Your task to perform on an android device: set default search engine in the chrome app Image 0: 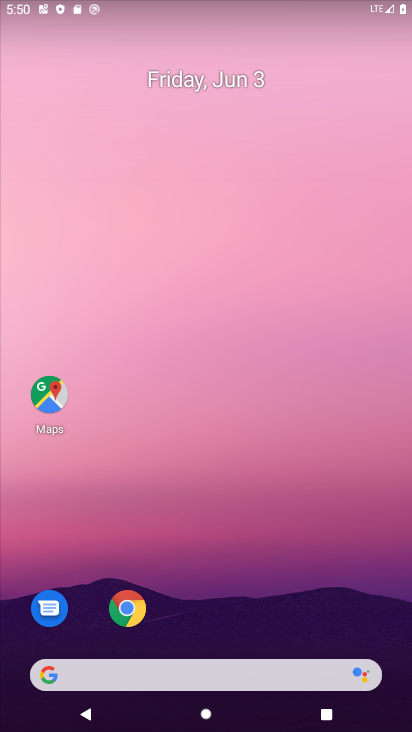
Step 0: click (126, 609)
Your task to perform on an android device: set default search engine in the chrome app Image 1: 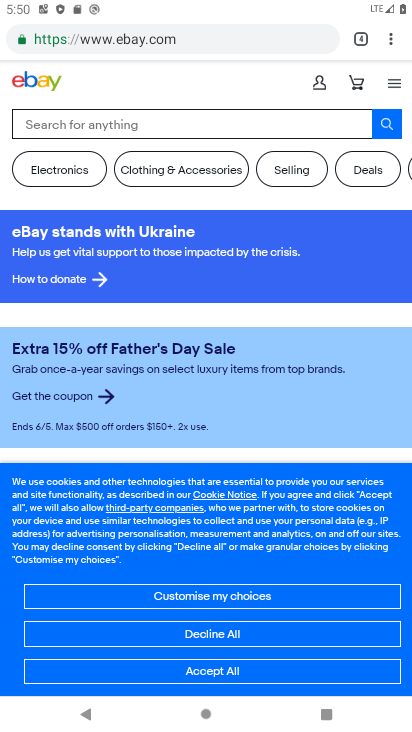
Step 1: click (398, 27)
Your task to perform on an android device: set default search engine in the chrome app Image 2: 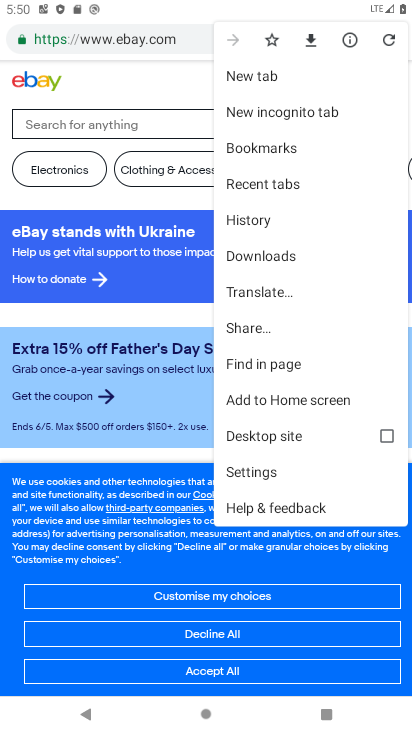
Step 2: click (259, 471)
Your task to perform on an android device: set default search engine in the chrome app Image 3: 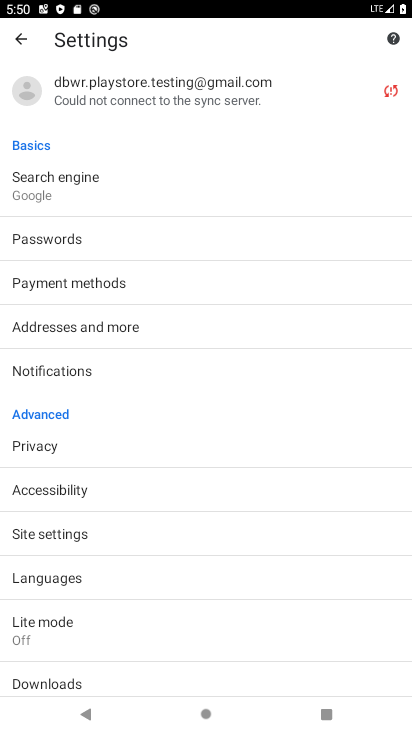
Step 3: click (143, 537)
Your task to perform on an android device: set default search engine in the chrome app Image 4: 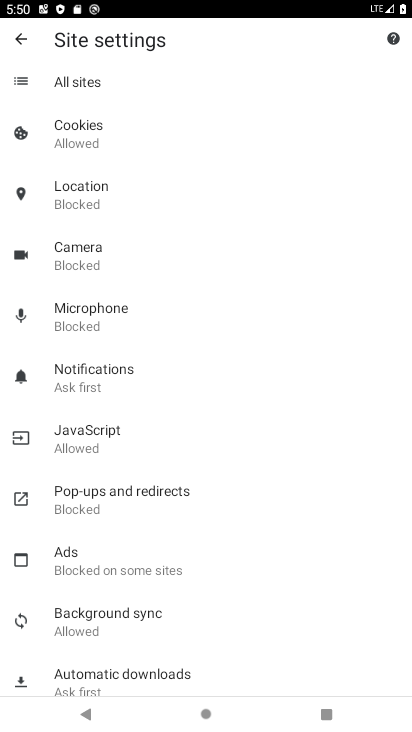
Step 4: task complete